Your task to perform on an android device: Open accessibility settings Image 0: 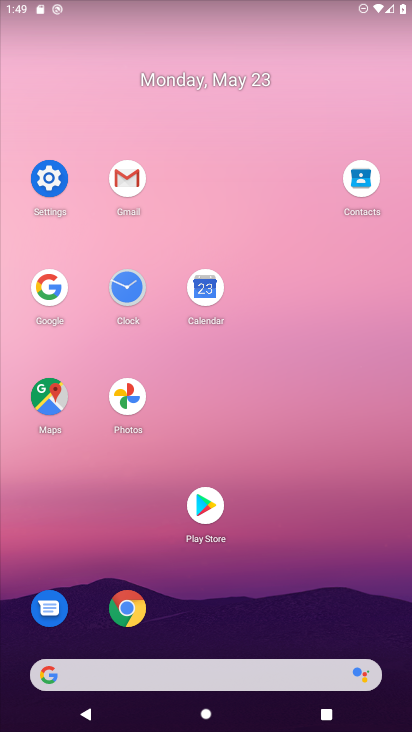
Step 0: click (53, 176)
Your task to perform on an android device: Open accessibility settings Image 1: 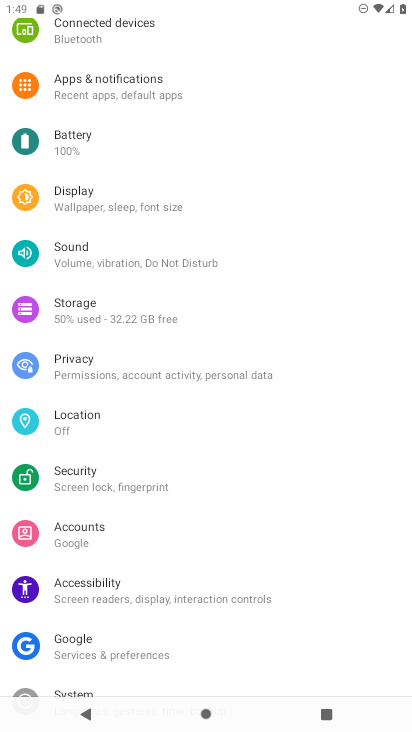
Step 1: click (189, 595)
Your task to perform on an android device: Open accessibility settings Image 2: 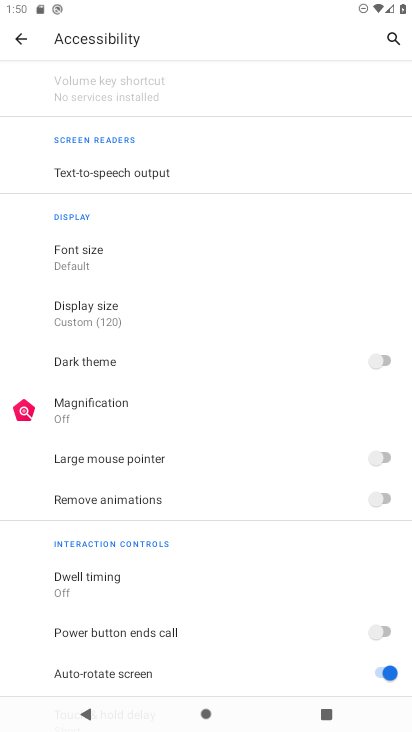
Step 2: task complete